Your task to perform on an android device: Go to notification settings Image 0: 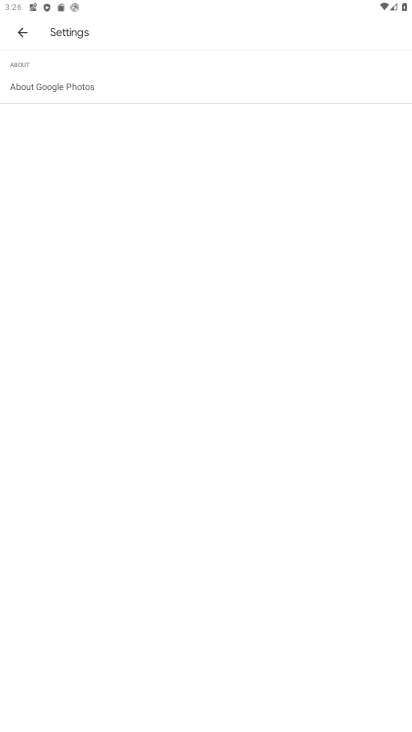
Step 0: press home button
Your task to perform on an android device: Go to notification settings Image 1: 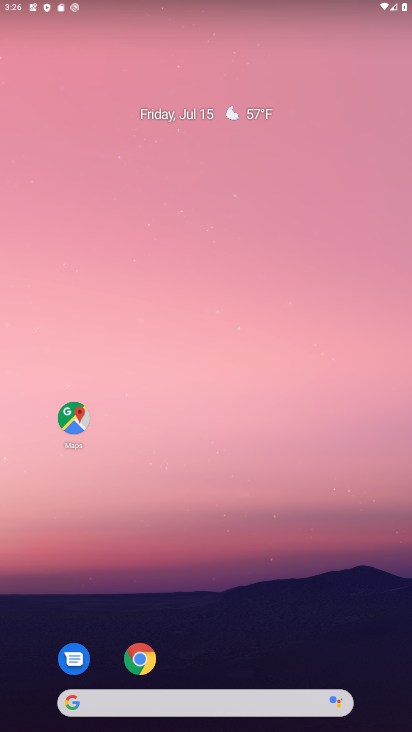
Step 1: drag from (10, 690) to (175, 92)
Your task to perform on an android device: Go to notification settings Image 2: 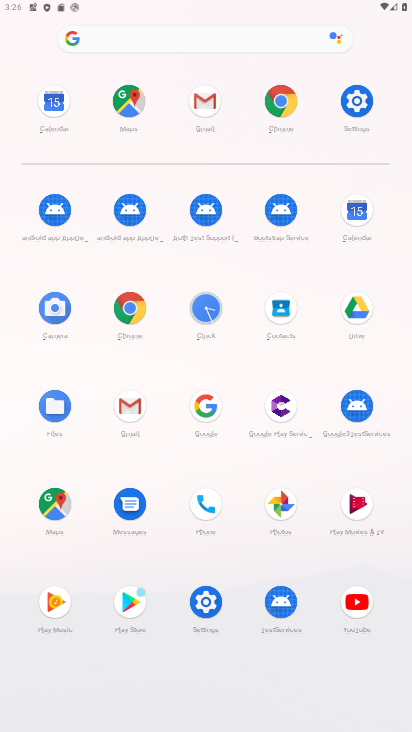
Step 2: click (216, 597)
Your task to perform on an android device: Go to notification settings Image 3: 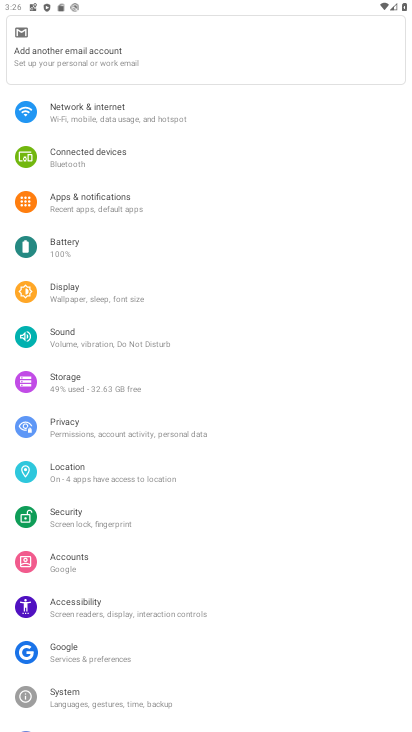
Step 3: click (101, 194)
Your task to perform on an android device: Go to notification settings Image 4: 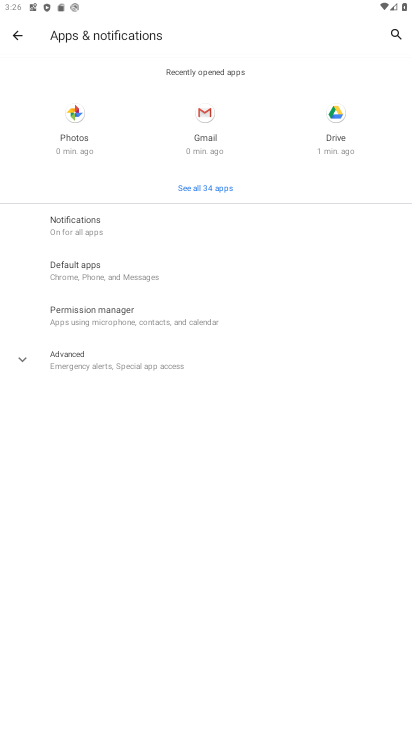
Step 4: task complete